Your task to perform on an android device: turn off notifications settings in the gmail app Image 0: 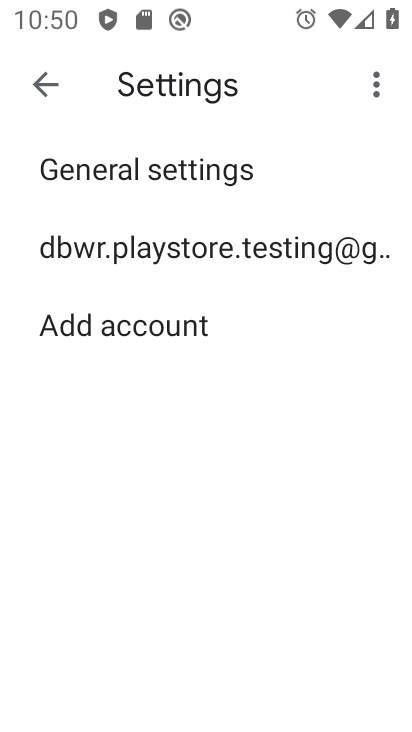
Step 0: press home button
Your task to perform on an android device: turn off notifications settings in the gmail app Image 1: 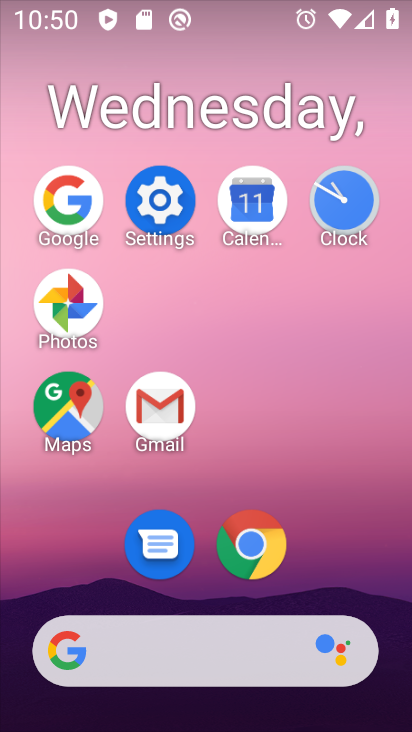
Step 1: click (186, 404)
Your task to perform on an android device: turn off notifications settings in the gmail app Image 2: 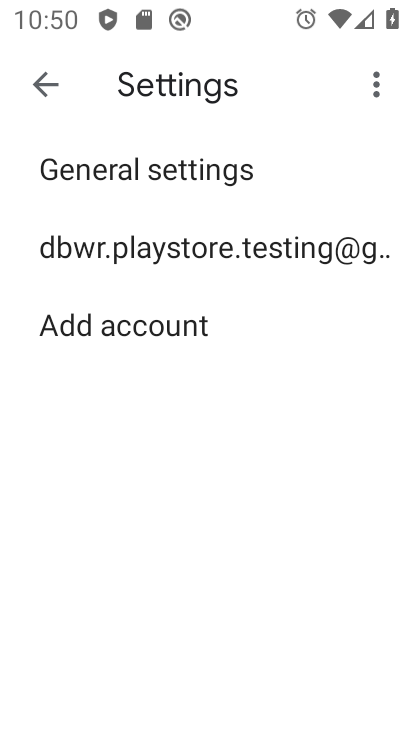
Step 2: click (133, 238)
Your task to perform on an android device: turn off notifications settings in the gmail app Image 3: 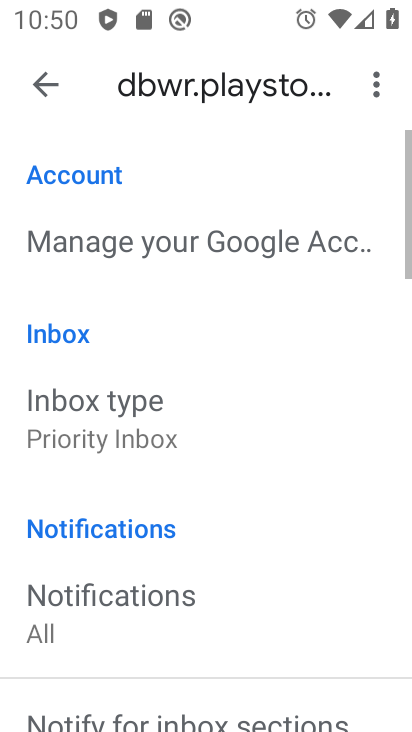
Step 3: click (216, 596)
Your task to perform on an android device: turn off notifications settings in the gmail app Image 4: 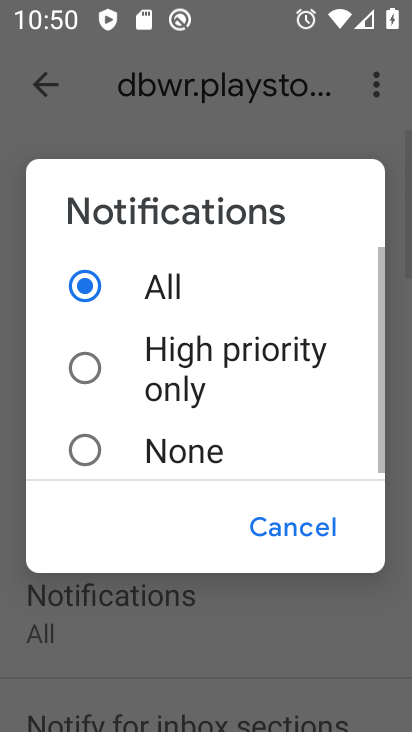
Step 4: click (145, 466)
Your task to perform on an android device: turn off notifications settings in the gmail app Image 5: 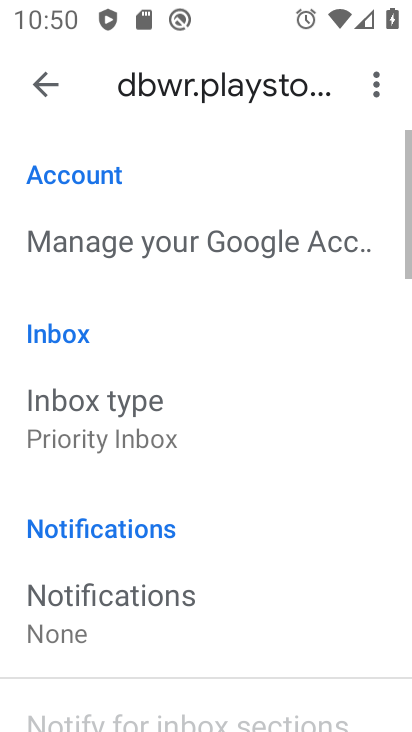
Step 5: task complete